Your task to perform on an android device: Open CNN.com Image 0: 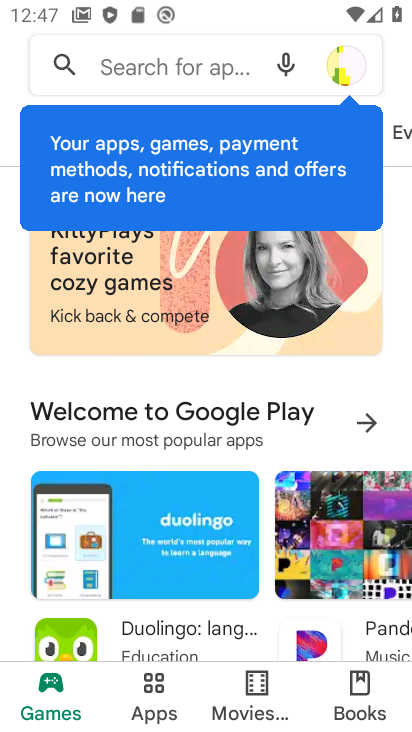
Step 0: press home button
Your task to perform on an android device: Open CNN.com Image 1: 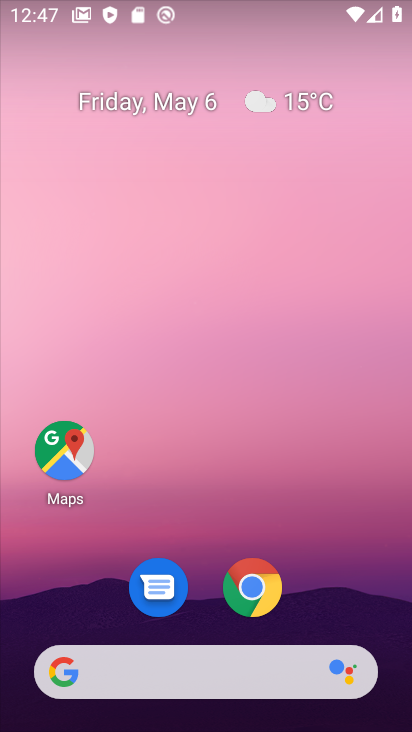
Step 1: click (262, 603)
Your task to perform on an android device: Open CNN.com Image 2: 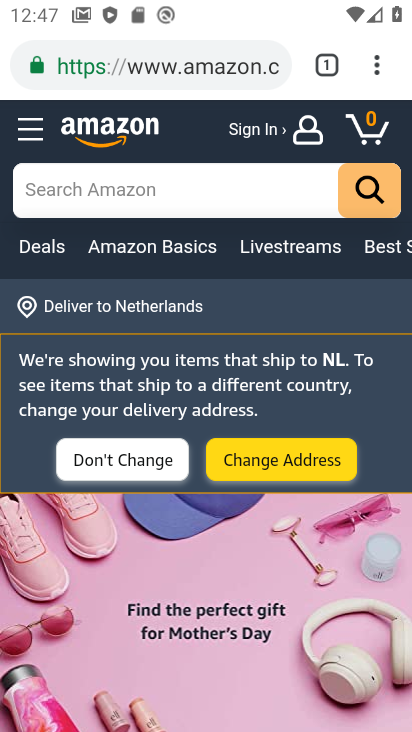
Step 2: press back button
Your task to perform on an android device: Open CNN.com Image 3: 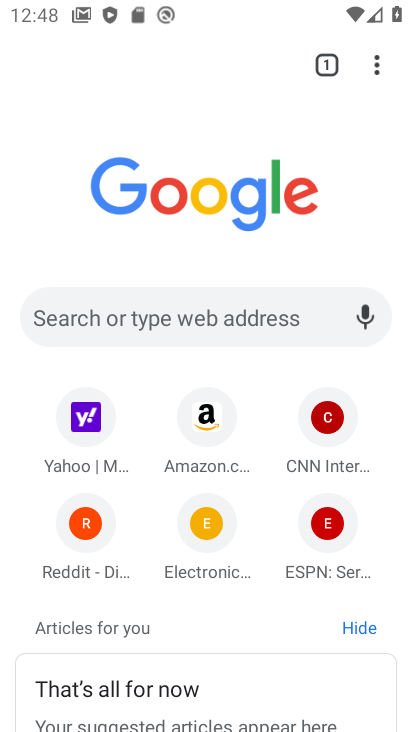
Step 3: click (165, 322)
Your task to perform on an android device: Open CNN.com Image 4: 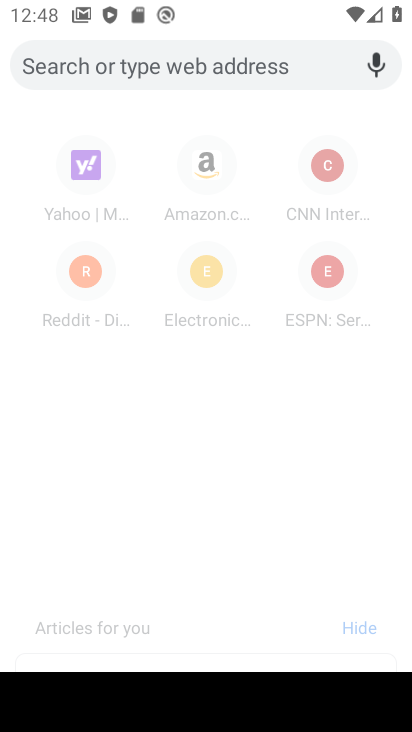
Step 4: type "www.cnn.com"
Your task to perform on an android device: Open CNN.com Image 5: 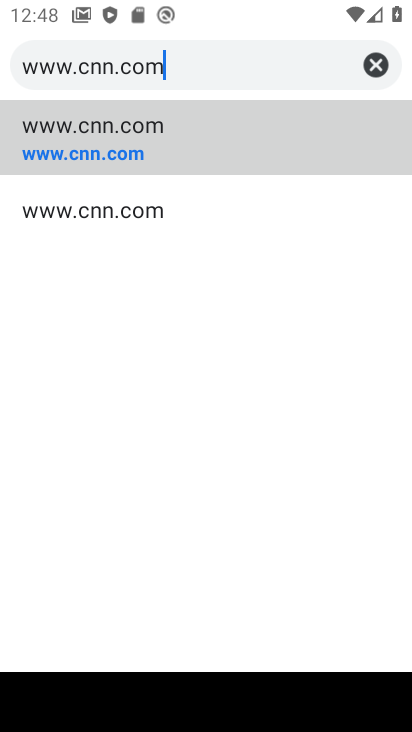
Step 5: click (97, 156)
Your task to perform on an android device: Open CNN.com Image 6: 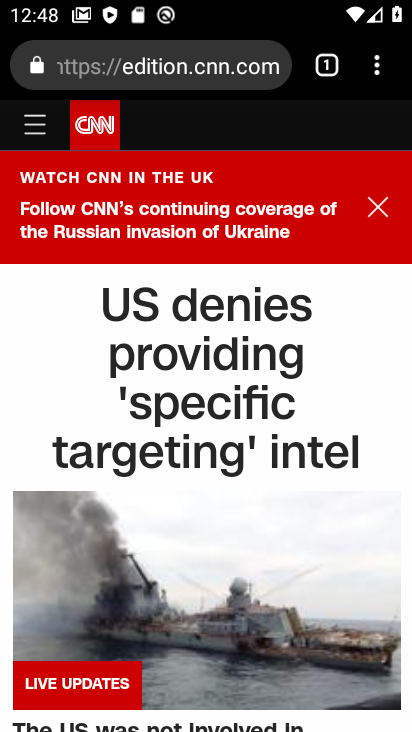
Step 6: task complete